Your task to perform on an android device: What's a good restaurant in San Jose? Image 0: 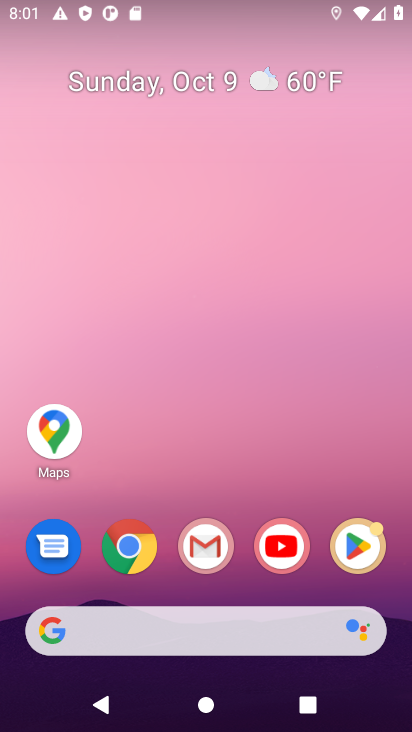
Step 0: click (139, 553)
Your task to perform on an android device: What's a good restaurant in San Jose? Image 1: 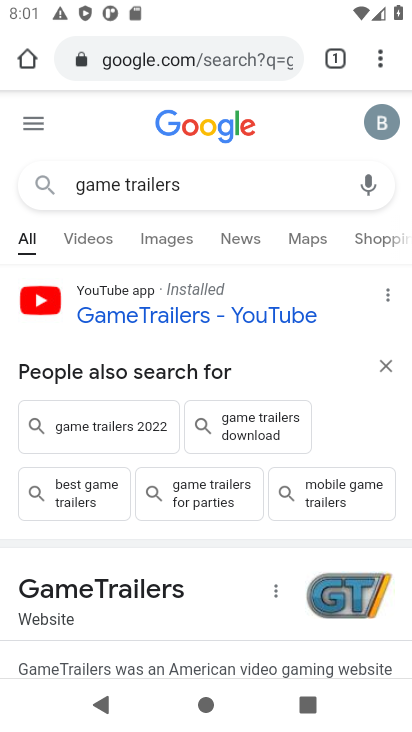
Step 1: click (228, 196)
Your task to perform on an android device: What's a good restaurant in San Jose? Image 2: 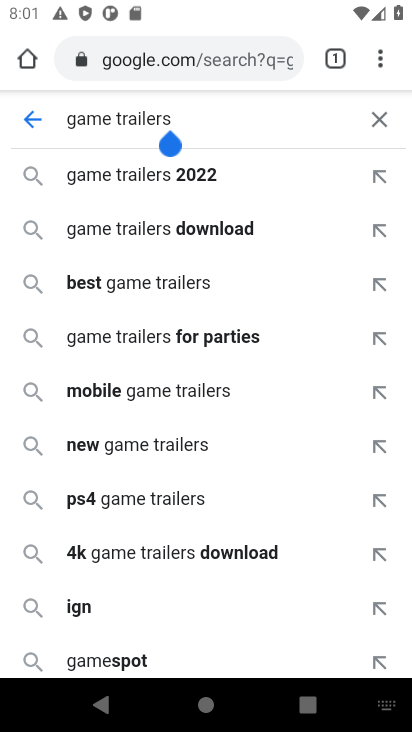
Step 2: click (382, 119)
Your task to perform on an android device: What's a good restaurant in San Jose? Image 3: 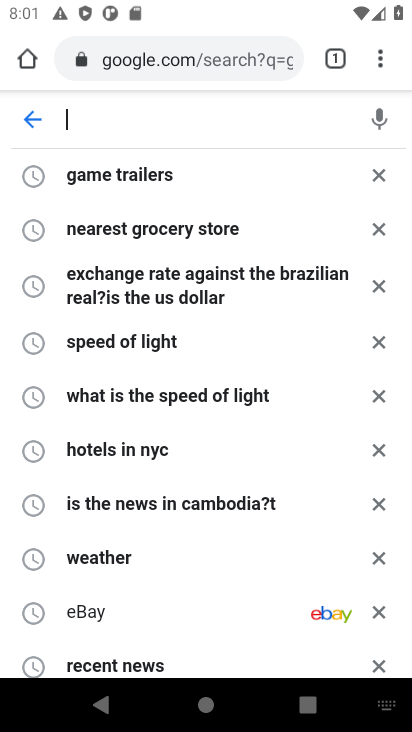
Step 3: type "good restaurant in sa"
Your task to perform on an android device: What's a good restaurant in San Jose? Image 4: 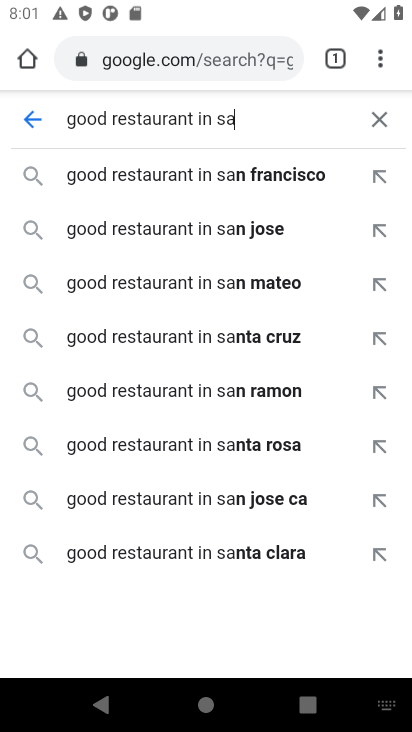
Step 4: click (258, 126)
Your task to perform on an android device: What's a good restaurant in San Jose? Image 5: 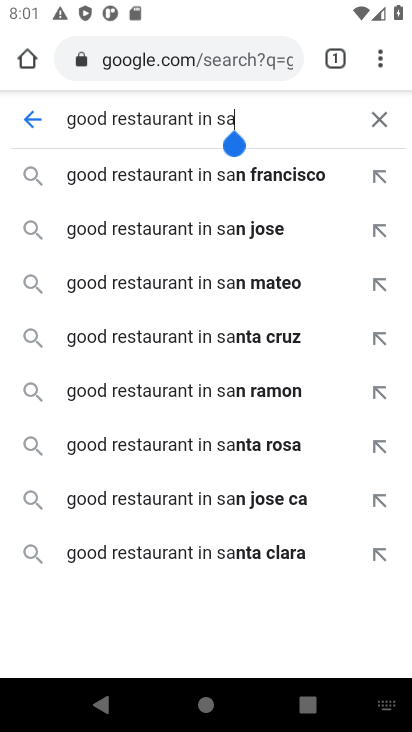
Step 5: click (250, 123)
Your task to perform on an android device: What's a good restaurant in San Jose? Image 6: 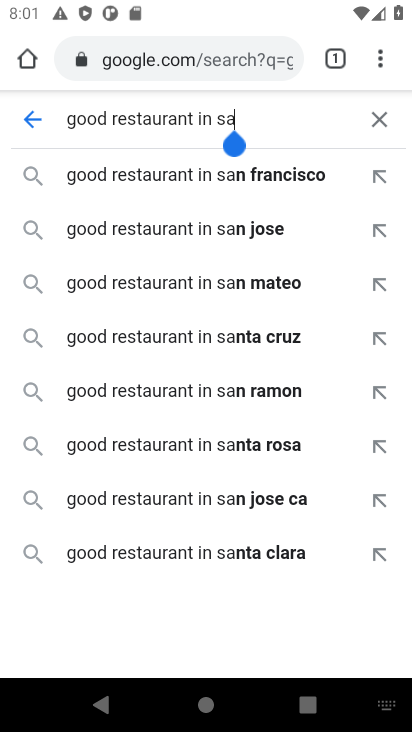
Step 6: type "n jose"
Your task to perform on an android device: What's a good restaurant in San Jose? Image 7: 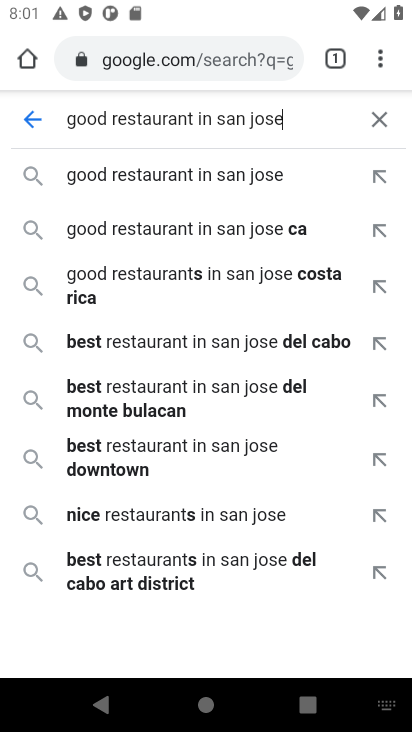
Step 7: type ""
Your task to perform on an android device: What's a good restaurant in San Jose? Image 8: 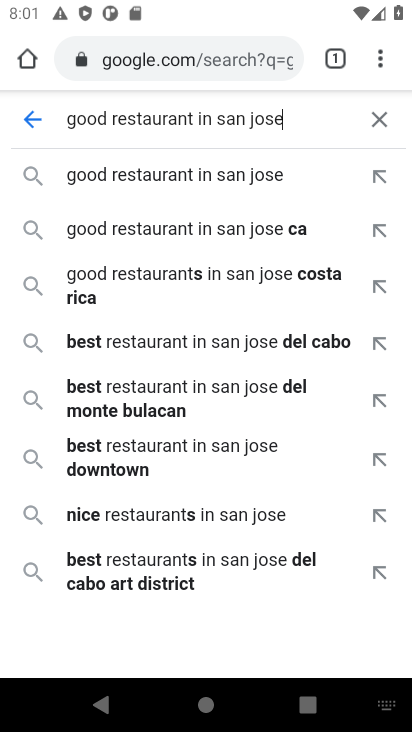
Step 8: press enter
Your task to perform on an android device: What's a good restaurant in San Jose? Image 9: 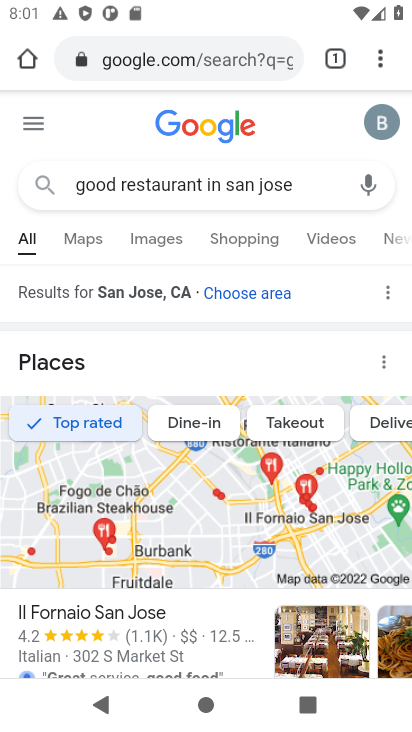
Step 9: drag from (289, 524) to (300, 413)
Your task to perform on an android device: What's a good restaurant in San Jose? Image 10: 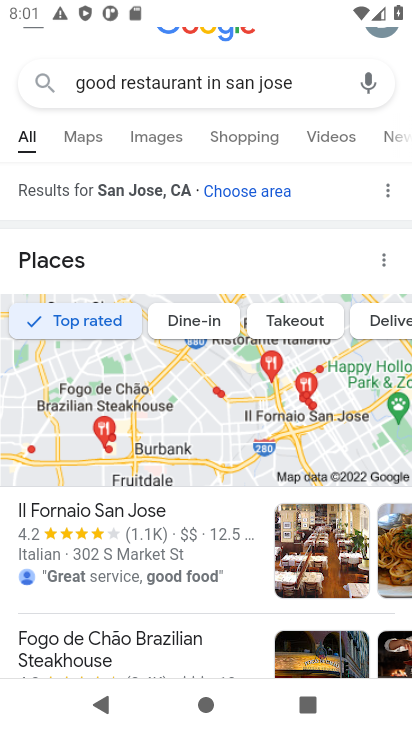
Step 10: drag from (242, 461) to (261, 369)
Your task to perform on an android device: What's a good restaurant in San Jose? Image 11: 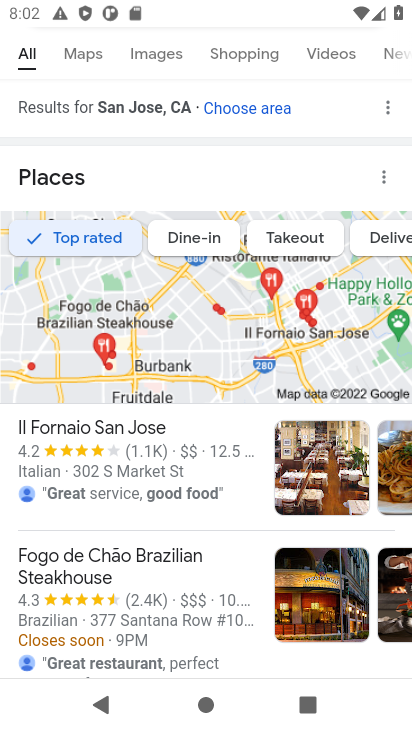
Step 11: drag from (279, 426) to (289, 312)
Your task to perform on an android device: What's a good restaurant in San Jose? Image 12: 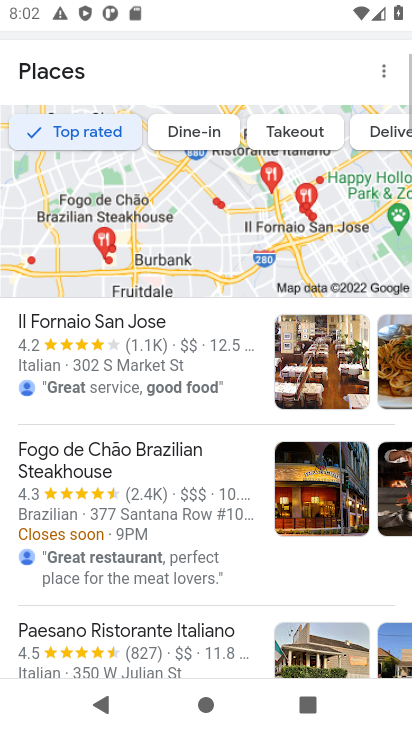
Step 12: drag from (274, 476) to (296, 322)
Your task to perform on an android device: What's a good restaurant in San Jose? Image 13: 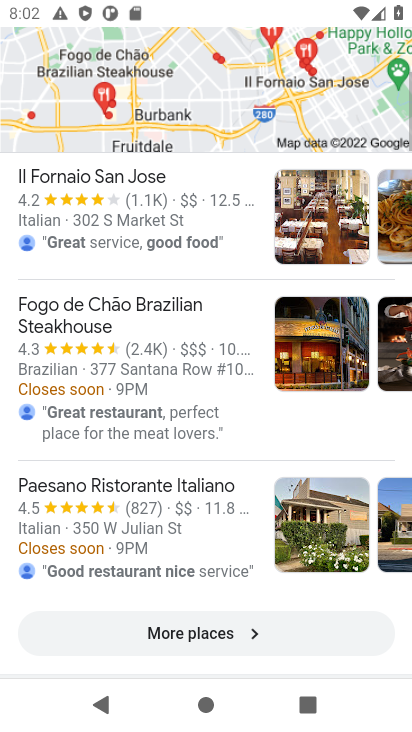
Step 13: drag from (292, 519) to (299, 318)
Your task to perform on an android device: What's a good restaurant in San Jose? Image 14: 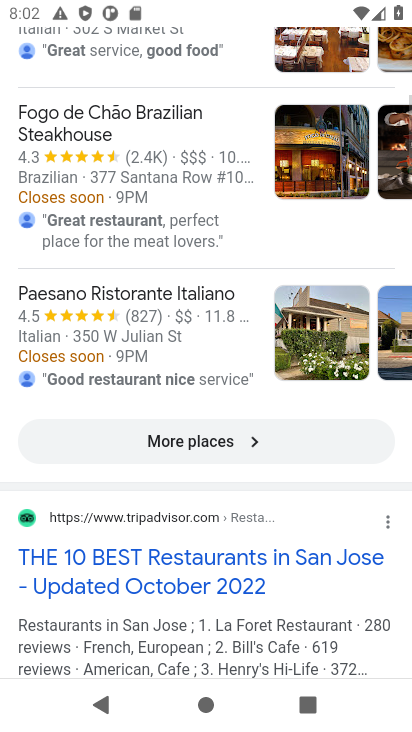
Step 14: drag from (286, 522) to (286, 302)
Your task to perform on an android device: What's a good restaurant in San Jose? Image 15: 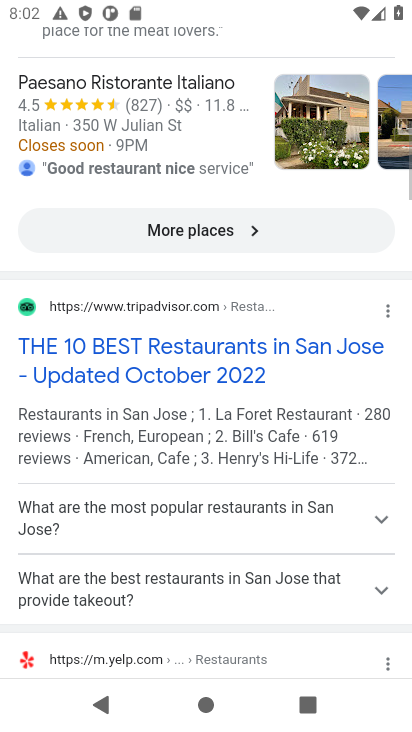
Step 15: drag from (281, 512) to (280, 324)
Your task to perform on an android device: What's a good restaurant in San Jose? Image 16: 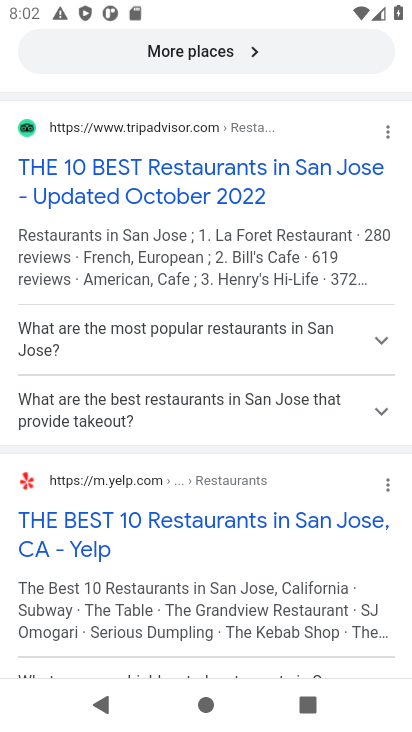
Step 16: drag from (252, 329) to (270, 535)
Your task to perform on an android device: What's a good restaurant in San Jose? Image 17: 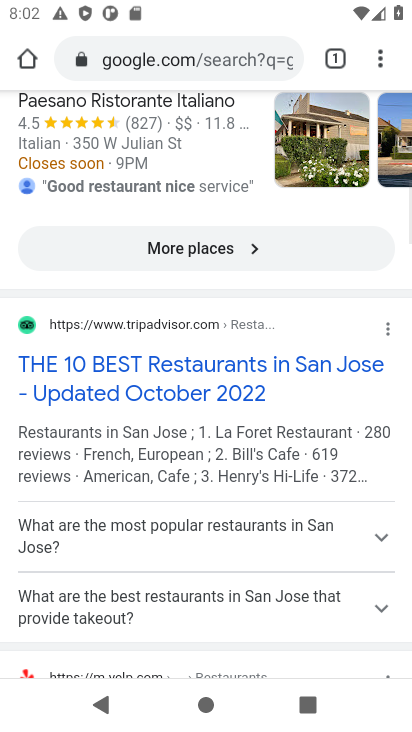
Step 17: drag from (245, 315) to (249, 419)
Your task to perform on an android device: What's a good restaurant in San Jose? Image 18: 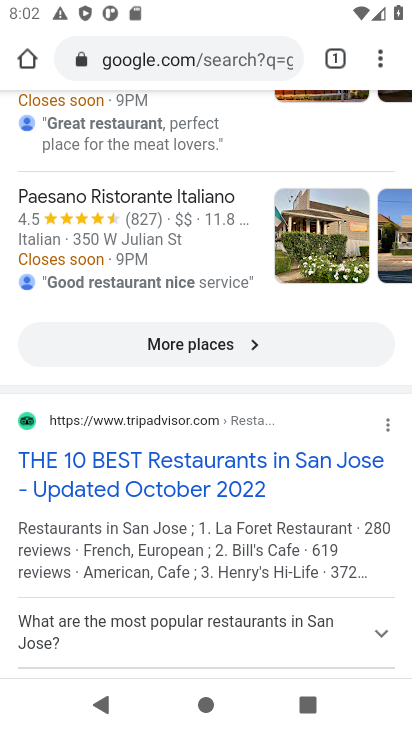
Step 18: click (197, 464)
Your task to perform on an android device: What's a good restaurant in San Jose? Image 19: 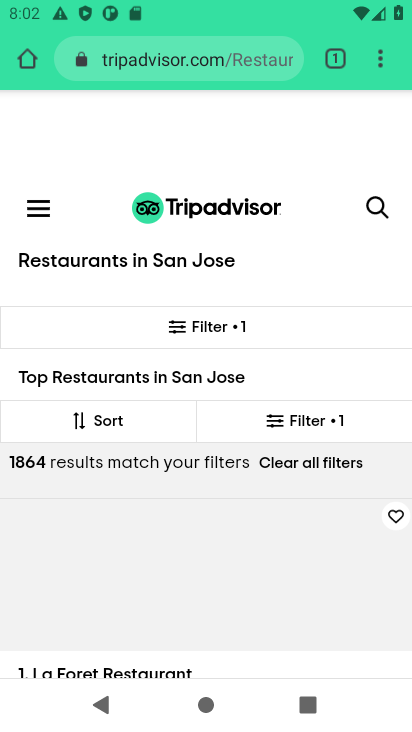
Step 19: drag from (201, 494) to (210, 363)
Your task to perform on an android device: What's a good restaurant in San Jose? Image 20: 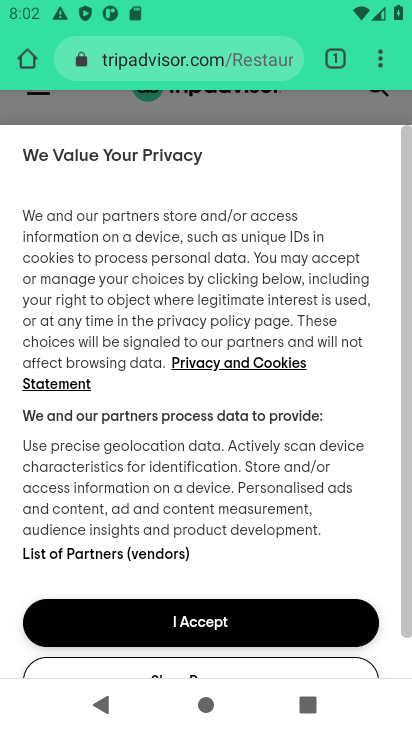
Step 20: click (264, 611)
Your task to perform on an android device: What's a good restaurant in San Jose? Image 21: 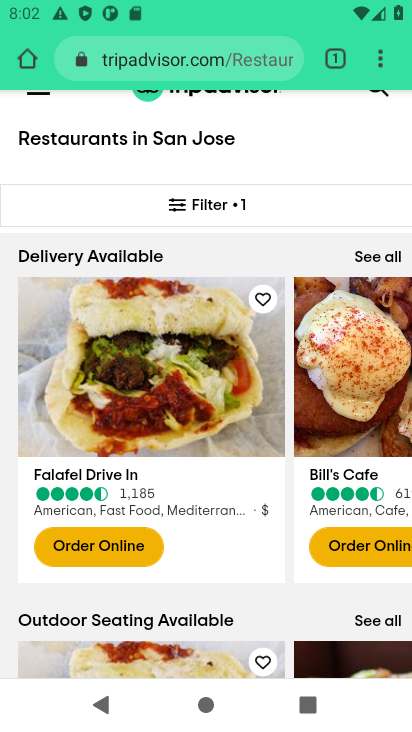
Step 21: drag from (262, 571) to (262, 510)
Your task to perform on an android device: What's a good restaurant in San Jose? Image 22: 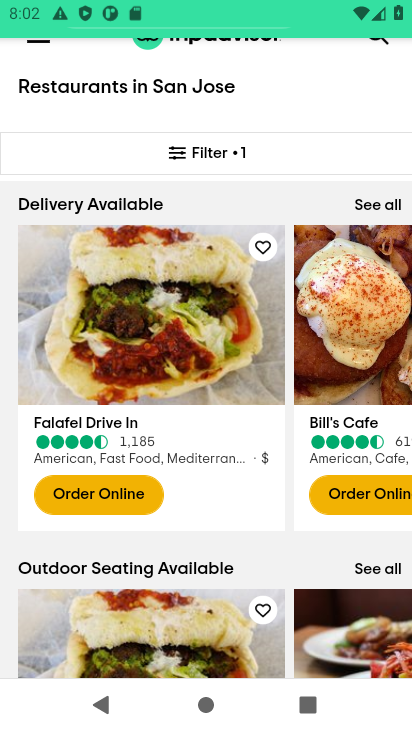
Step 22: drag from (262, 510) to (262, 413)
Your task to perform on an android device: What's a good restaurant in San Jose? Image 23: 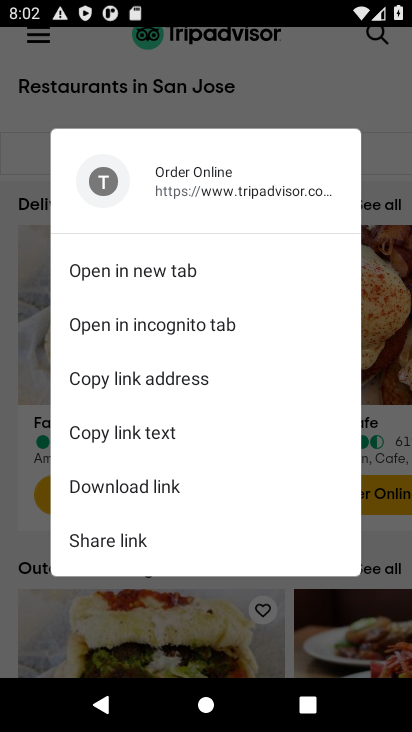
Step 23: click (259, 612)
Your task to perform on an android device: What's a good restaurant in San Jose? Image 24: 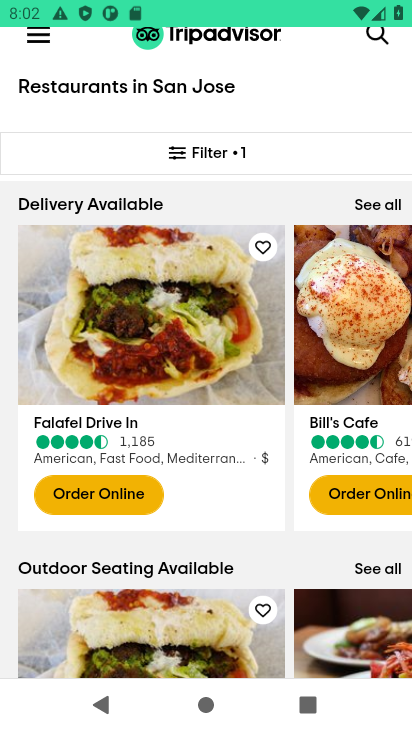
Step 24: task complete